Your task to perform on an android device: turn pop-ups on in chrome Image 0: 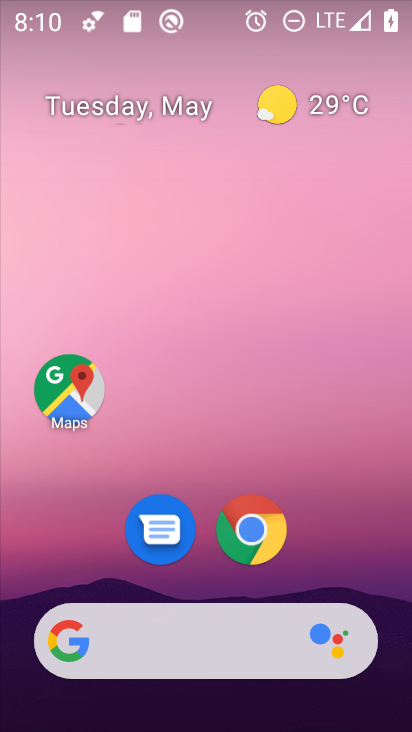
Step 0: drag from (404, 614) to (249, 170)
Your task to perform on an android device: turn pop-ups on in chrome Image 1: 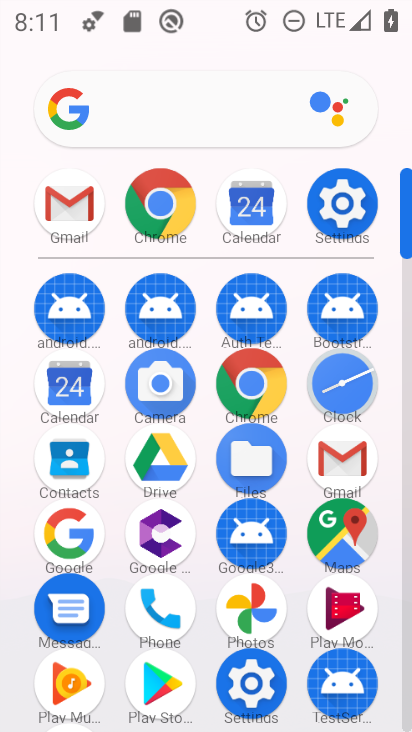
Step 1: click (245, 380)
Your task to perform on an android device: turn pop-ups on in chrome Image 2: 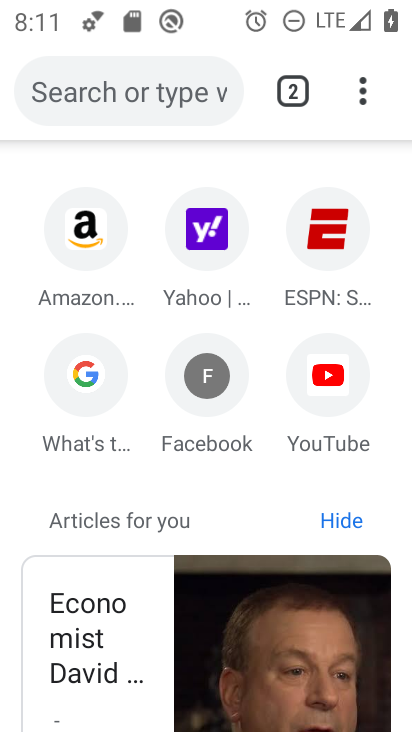
Step 2: click (361, 85)
Your task to perform on an android device: turn pop-ups on in chrome Image 3: 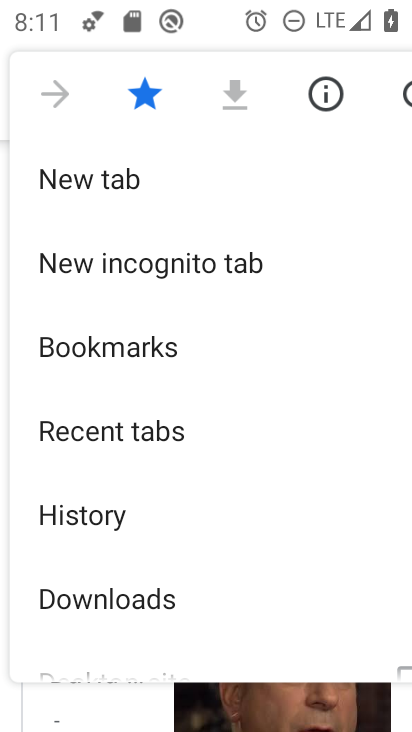
Step 3: drag from (185, 619) to (238, 198)
Your task to perform on an android device: turn pop-ups on in chrome Image 4: 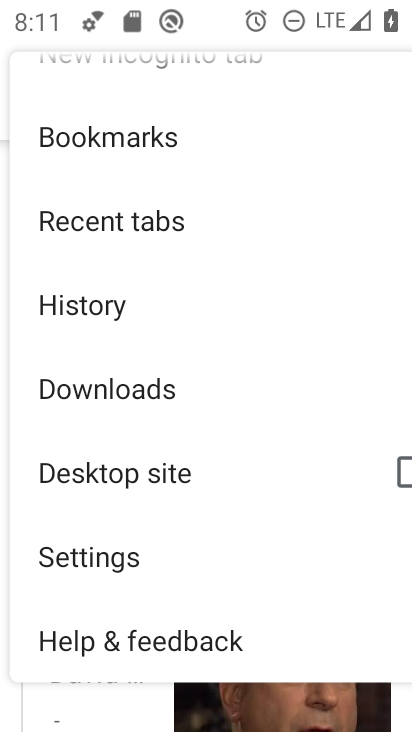
Step 4: click (136, 549)
Your task to perform on an android device: turn pop-ups on in chrome Image 5: 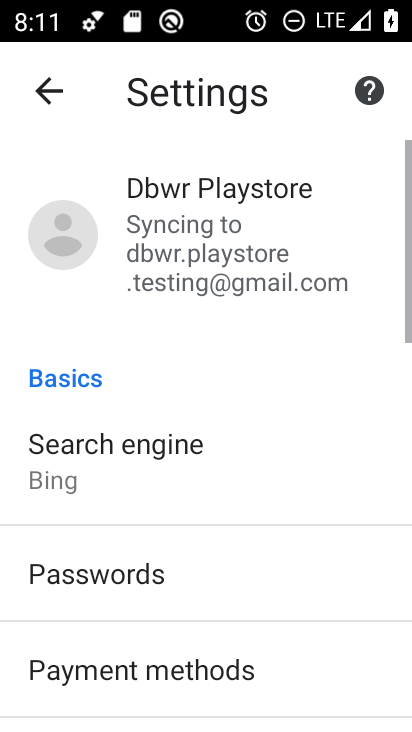
Step 5: drag from (143, 668) to (163, 274)
Your task to perform on an android device: turn pop-ups on in chrome Image 6: 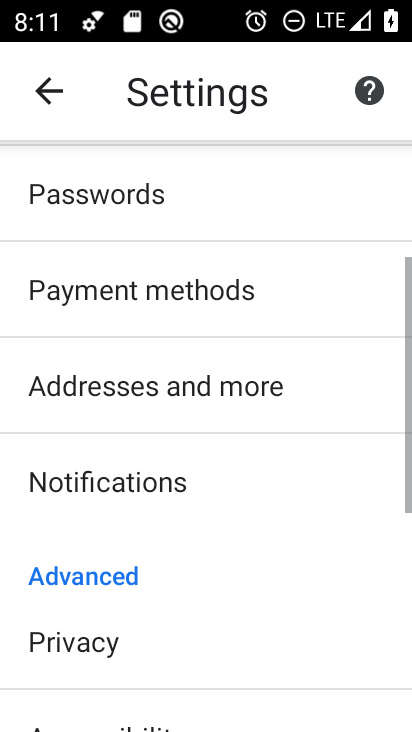
Step 6: drag from (98, 624) to (142, 361)
Your task to perform on an android device: turn pop-ups on in chrome Image 7: 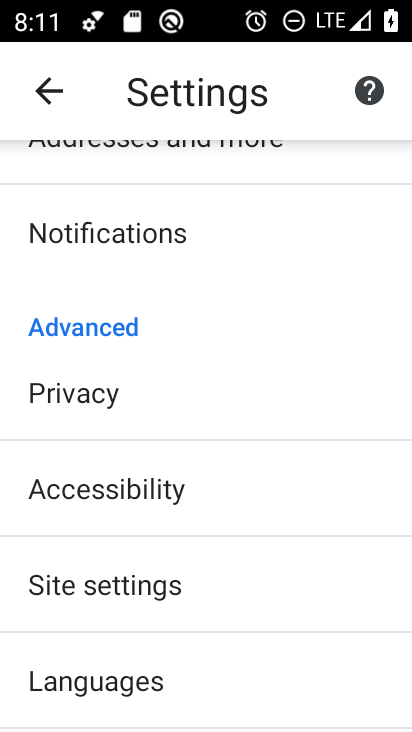
Step 7: click (133, 585)
Your task to perform on an android device: turn pop-ups on in chrome Image 8: 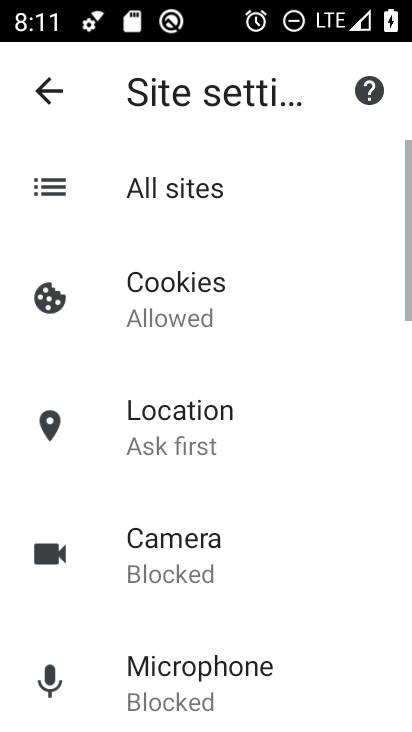
Step 8: drag from (133, 585) to (174, 188)
Your task to perform on an android device: turn pop-ups on in chrome Image 9: 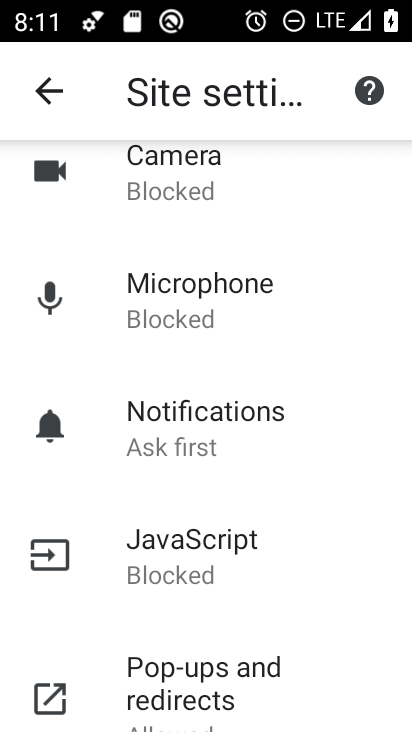
Step 9: click (250, 683)
Your task to perform on an android device: turn pop-ups on in chrome Image 10: 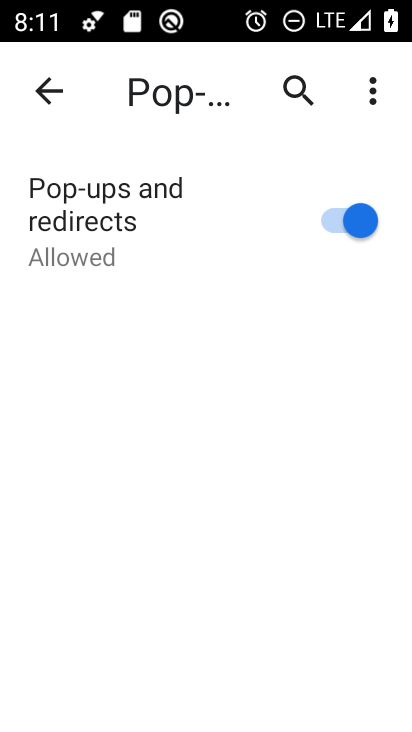
Step 10: task complete